Your task to perform on an android device: What's the weather going to be tomorrow? Image 0: 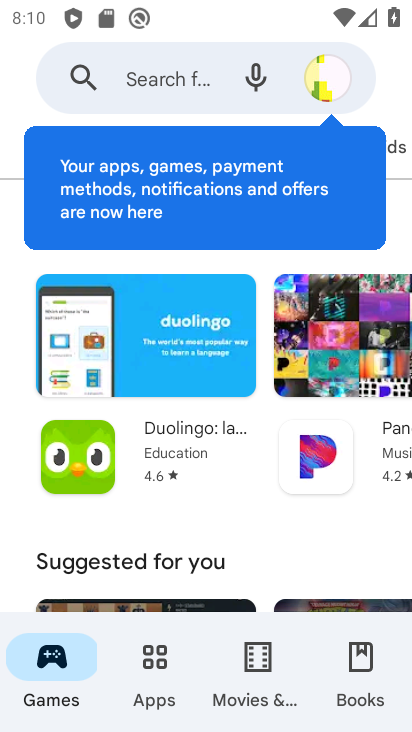
Step 0: press home button
Your task to perform on an android device: What's the weather going to be tomorrow? Image 1: 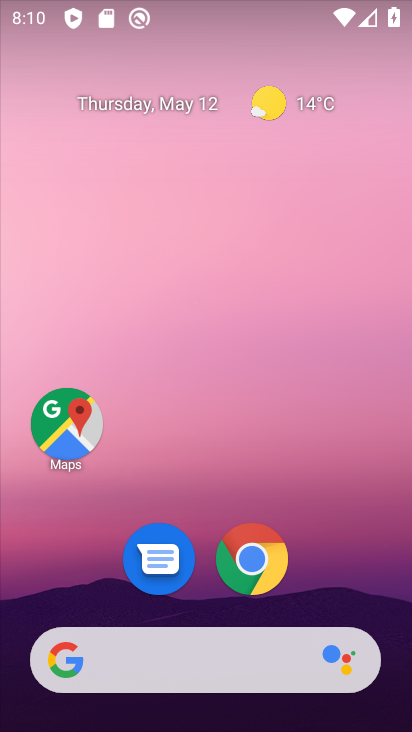
Step 1: click (230, 576)
Your task to perform on an android device: What's the weather going to be tomorrow? Image 2: 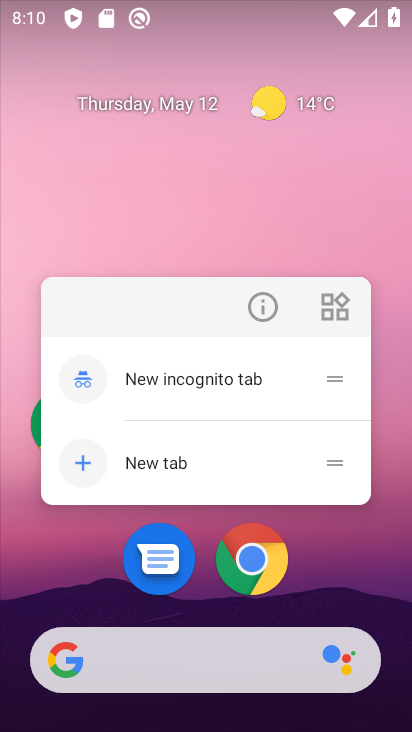
Step 2: click (246, 588)
Your task to perform on an android device: What's the weather going to be tomorrow? Image 3: 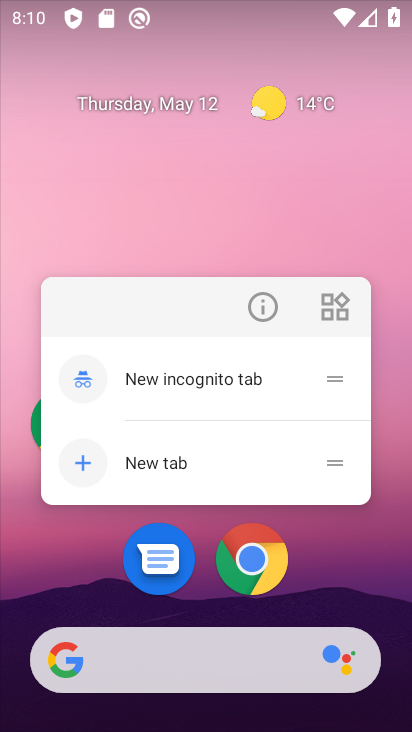
Step 3: click (273, 576)
Your task to perform on an android device: What's the weather going to be tomorrow? Image 4: 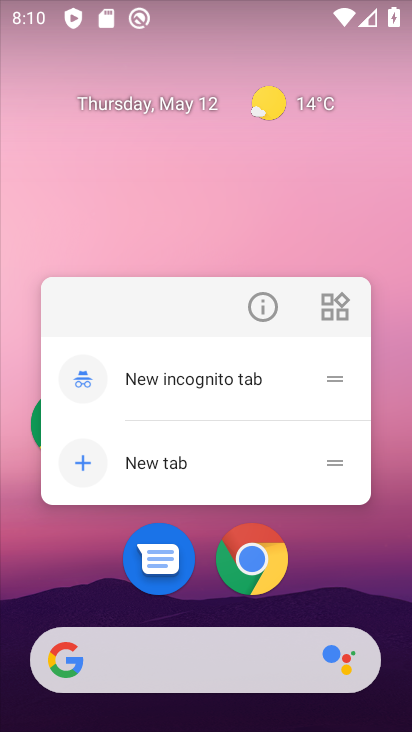
Step 4: click (251, 560)
Your task to perform on an android device: What's the weather going to be tomorrow? Image 5: 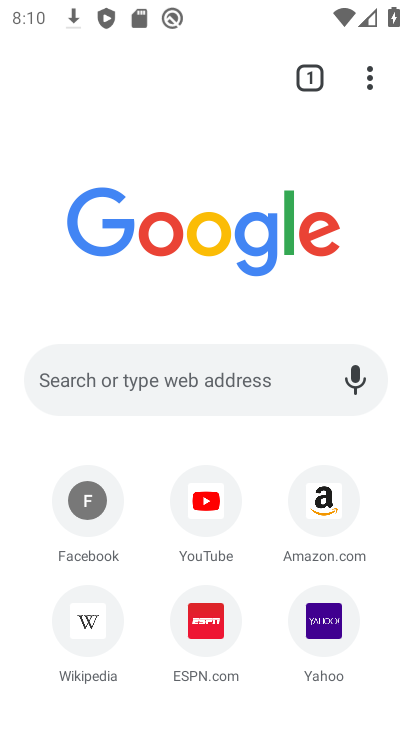
Step 5: click (216, 380)
Your task to perform on an android device: What's the weather going to be tomorrow? Image 6: 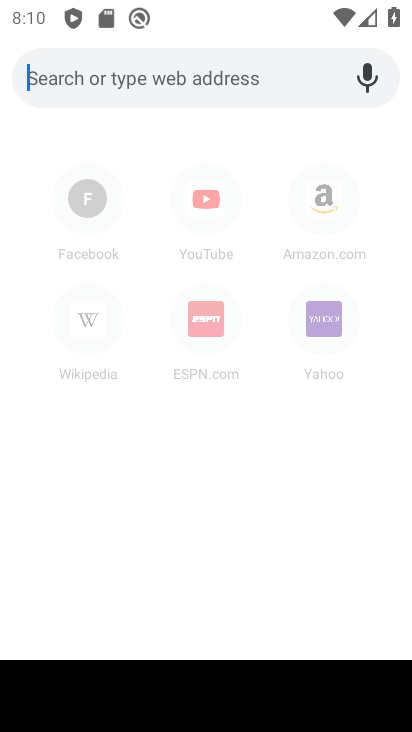
Step 6: type "whats the weather going to be tomorrow"
Your task to perform on an android device: What's the weather going to be tomorrow? Image 7: 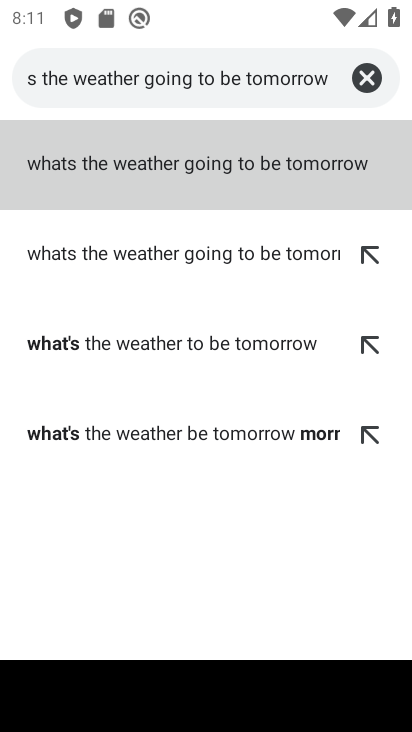
Step 7: click (278, 178)
Your task to perform on an android device: What's the weather going to be tomorrow? Image 8: 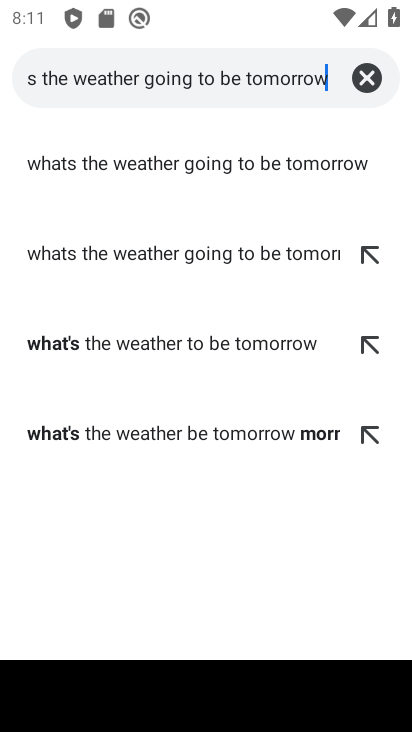
Step 8: click (269, 173)
Your task to perform on an android device: What's the weather going to be tomorrow? Image 9: 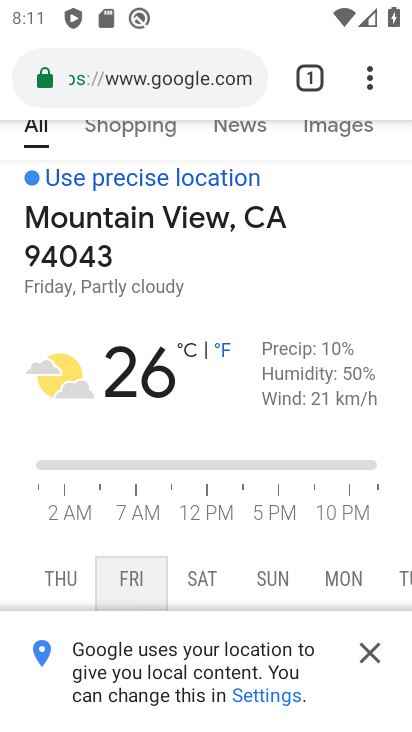
Step 9: task complete